Your task to perform on an android device: Open settings Image 0: 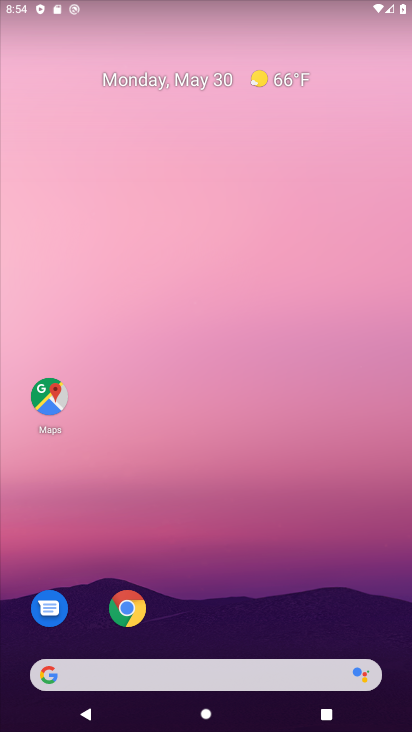
Step 0: drag from (236, 717) to (208, 97)
Your task to perform on an android device: Open settings Image 1: 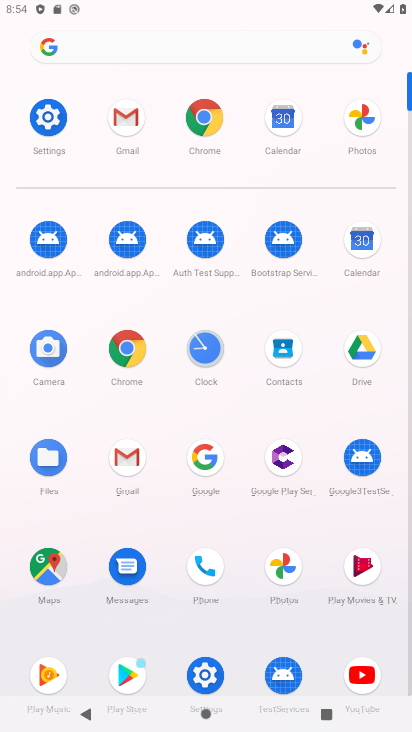
Step 1: click (50, 119)
Your task to perform on an android device: Open settings Image 2: 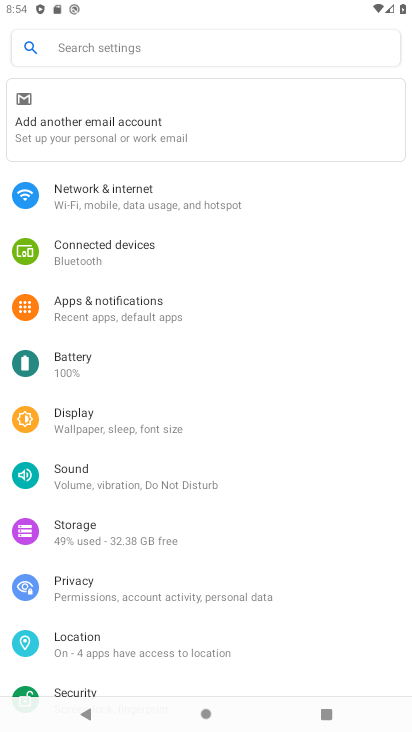
Step 2: task complete